Your task to perform on an android device: open a new tab in the chrome app Image 0: 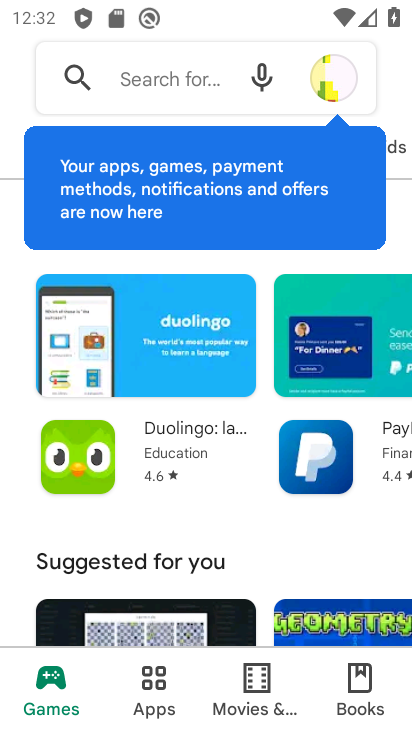
Step 0: press home button
Your task to perform on an android device: open a new tab in the chrome app Image 1: 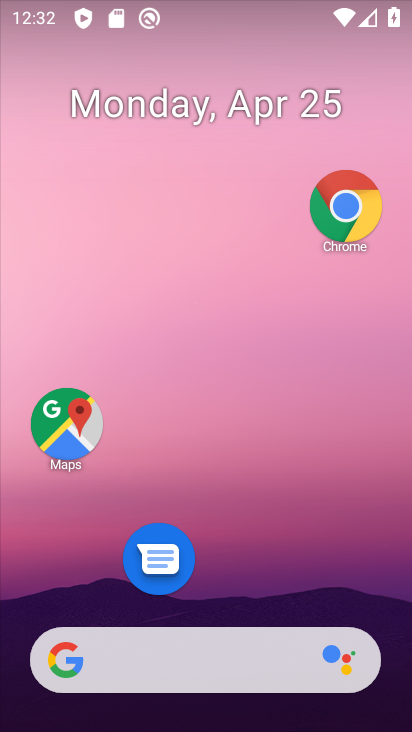
Step 1: click (345, 211)
Your task to perform on an android device: open a new tab in the chrome app Image 2: 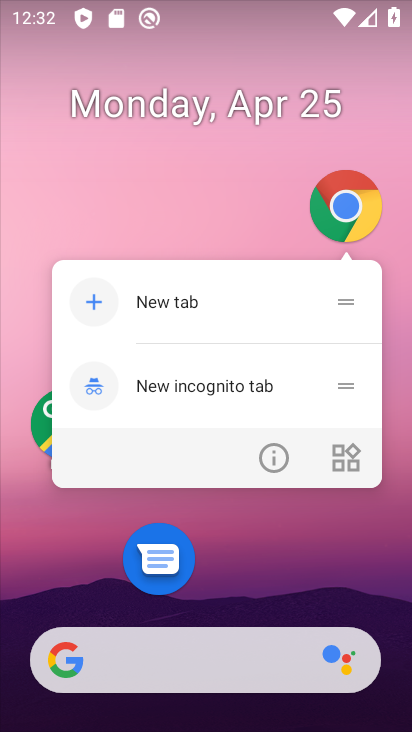
Step 2: click (346, 207)
Your task to perform on an android device: open a new tab in the chrome app Image 3: 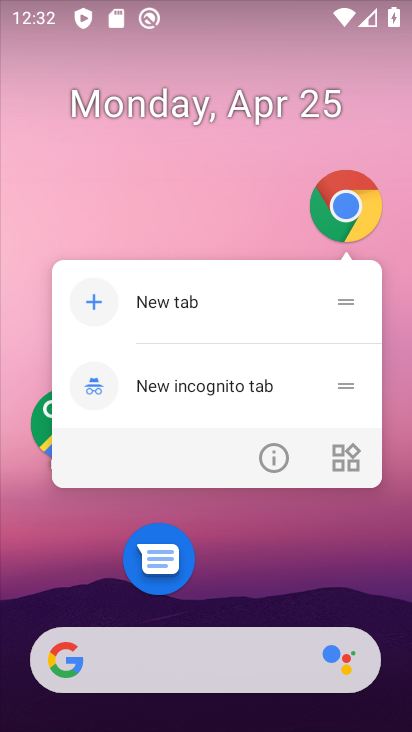
Step 3: click (345, 199)
Your task to perform on an android device: open a new tab in the chrome app Image 4: 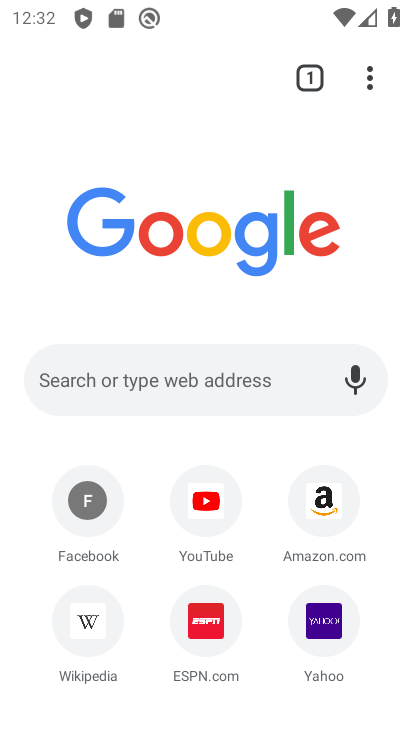
Step 4: click (314, 69)
Your task to perform on an android device: open a new tab in the chrome app Image 5: 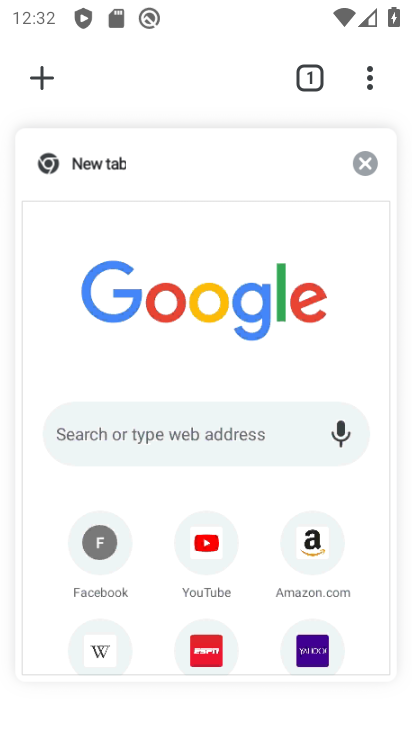
Step 5: click (40, 76)
Your task to perform on an android device: open a new tab in the chrome app Image 6: 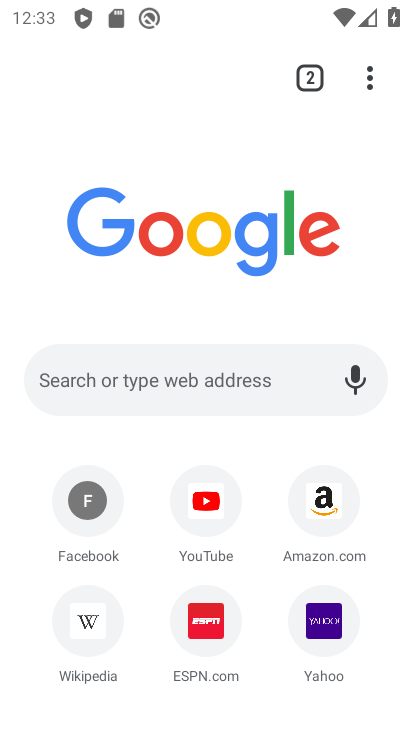
Step 6: task complete